Your task to perform on an android device: Go to Maps Image 0: 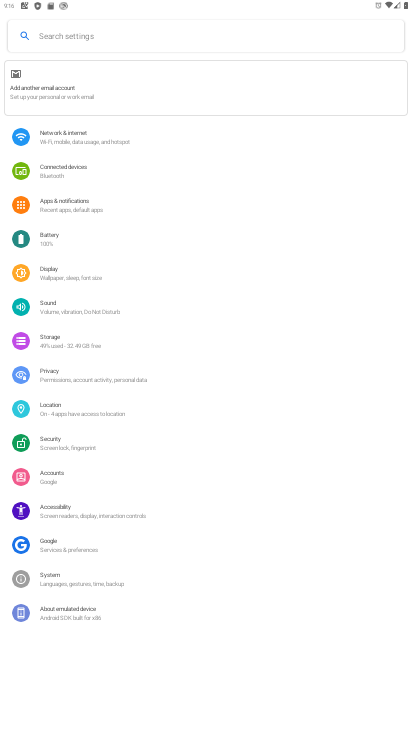
Step 0: press home button
Your task to perform on an android device: Go to Maps Image 1: 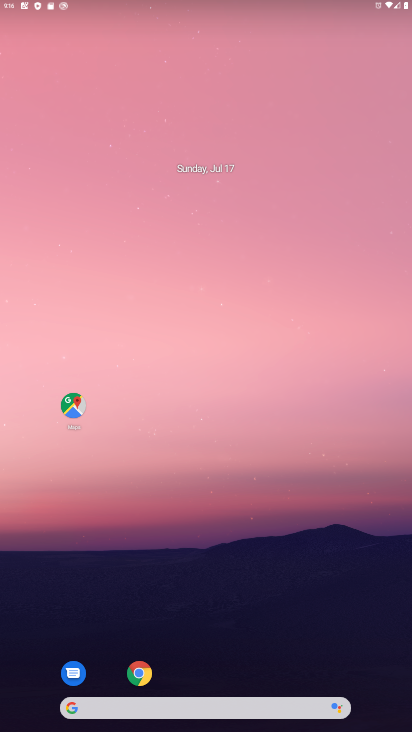
Step 1: drag from (284, 556) to (233, 62)
Your task to perform on an android device: Go to Maps Image 2: 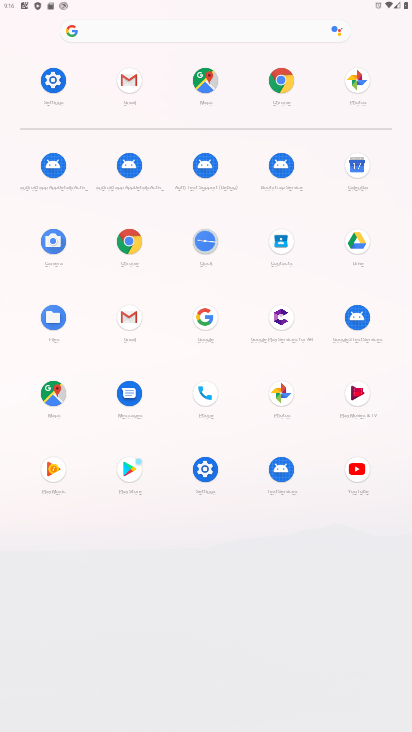
Step 2: click (211, 81)
Your task to perform on an android device: Go to Maps Image 3: 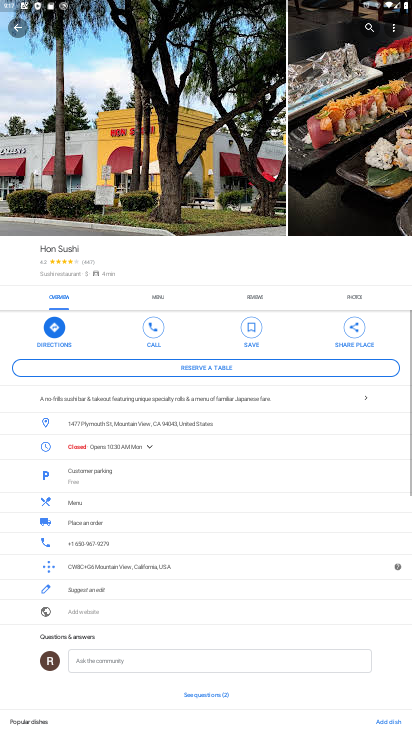
Step 3: task complete